Your task to perform on an android device: Go to location settings Image 0: 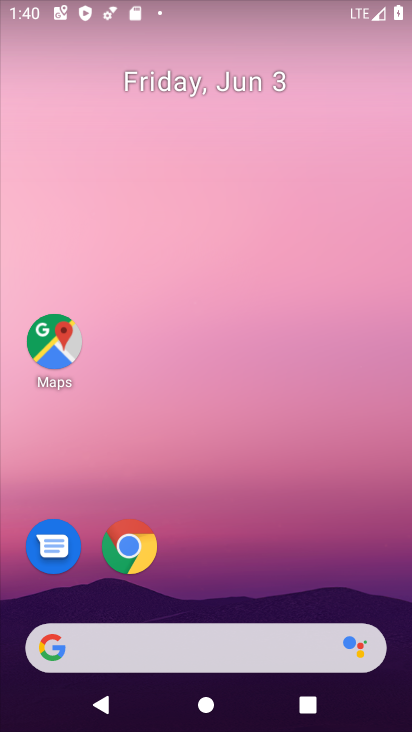
Step 0: drag from (200, 622) to (410, 701)
Your task to perform on an android device: Go to location settings Image 1: 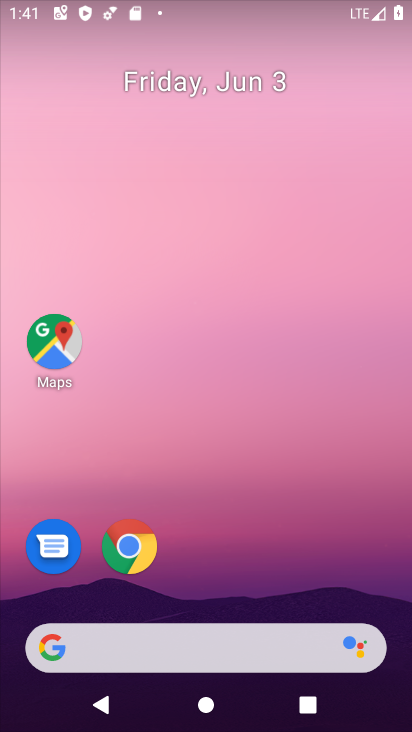
Step 1: drag from (223, 608) to (155, 24)
Your task to perform on an android device: Go to location settings Image 2: 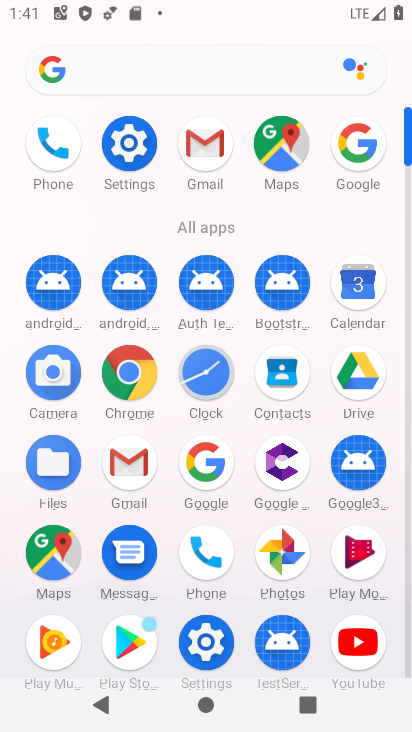
Step 2: click (211, 645)
Your task to perform on an android device: Go to location settings Image 3: 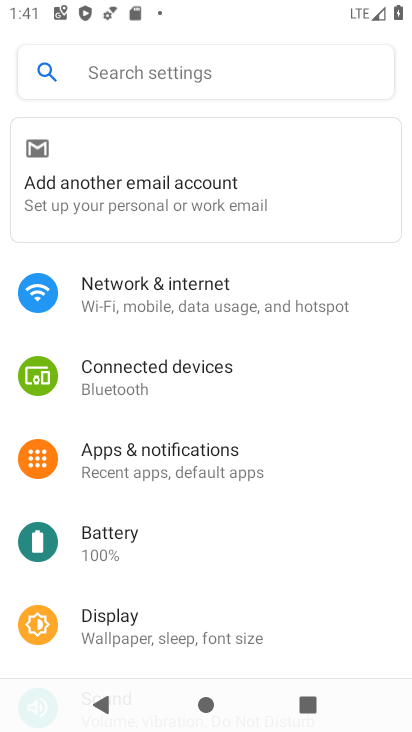
Step 3: drag from (200, 544) to (125, 112)
Your task to perform on an android device: Go to location settings Image 4: 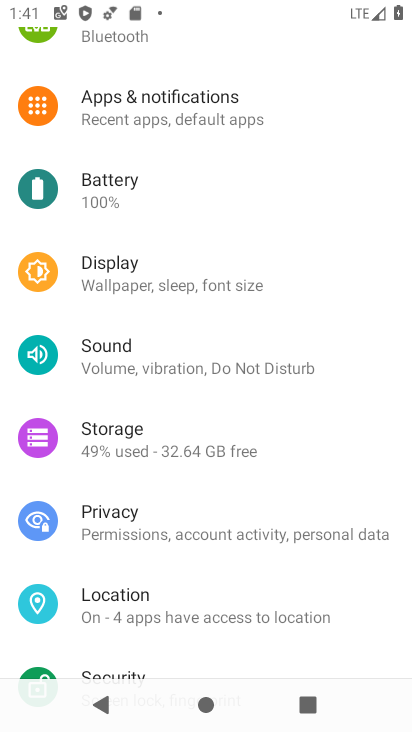
Step 4: click (154, 605)
Your task to perform on an android device: Go to location settings Image 5: 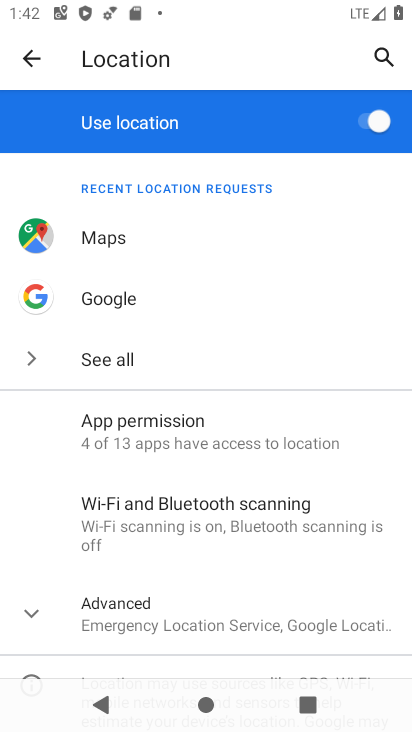
Step 5: click (206, 605)
Your task to perform on an android device: Go to location settings Image 6: 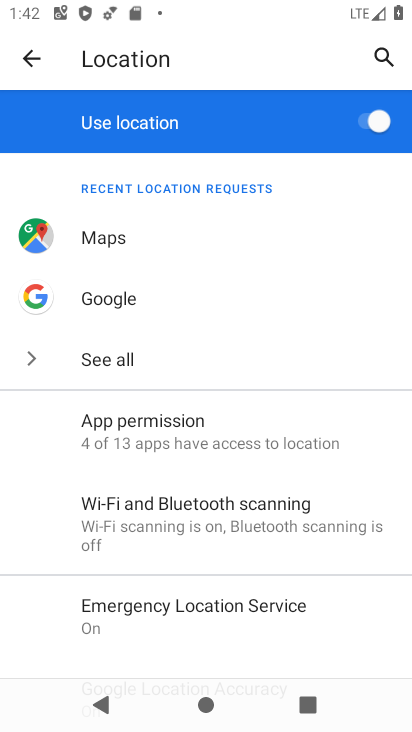
Step 6: task complete